Your task to perform on an android device: show emergency info Image 0: 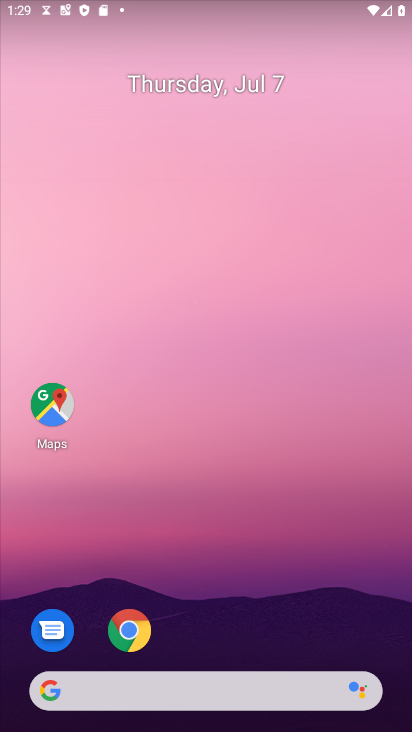
Step 0: drag from (274, 634) to (224, 81)
Your task to perform on an android device: show emergency info Image 1: 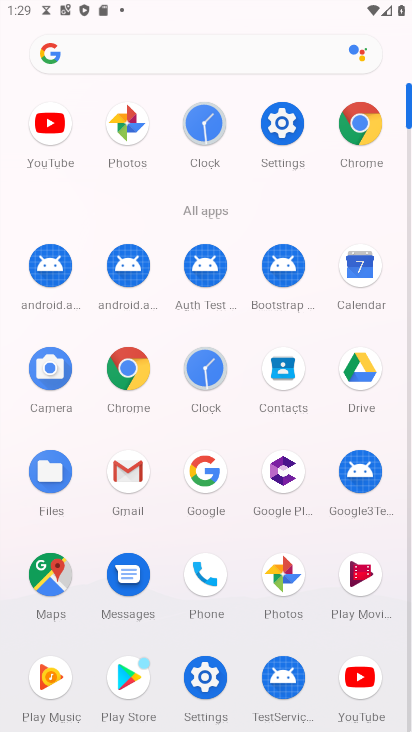
Step 1: click (285, 132)
Your task to perform on an android device: show emergency info Image 2: 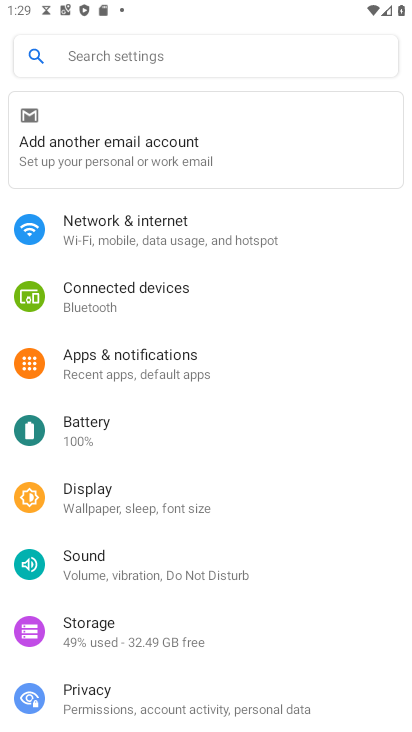
Step 2: drag from (217, 638) to (184, 142)
Your task to perform on an android device: show emergency info Image 3: 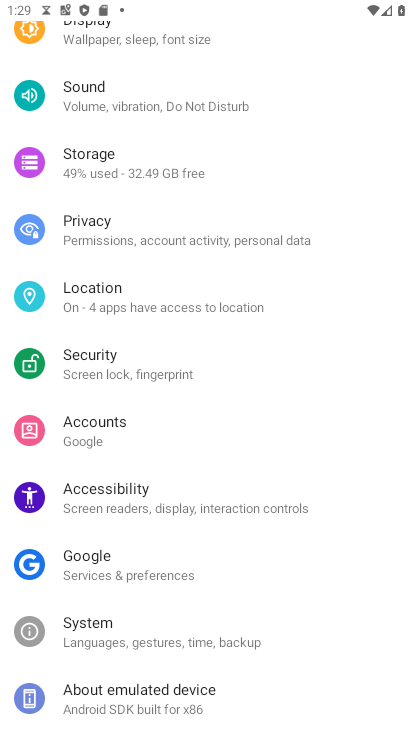
Step 3: click (180, 705)
Your task to perform on an android device: show emergency info Image 4: 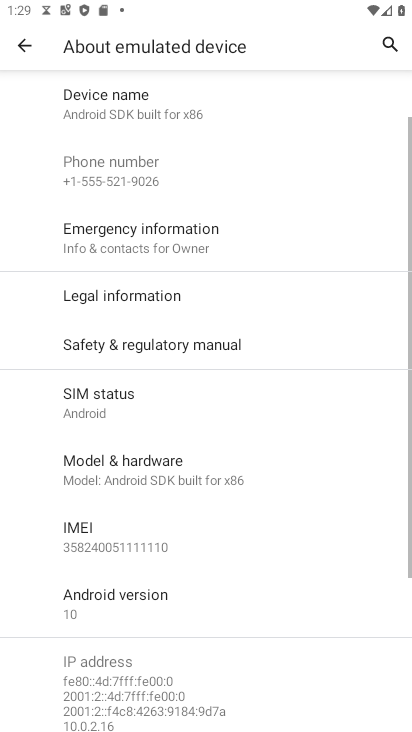
Step 4: click (206, 222)
Your task to perform on an android device: show emergency info Image 5: 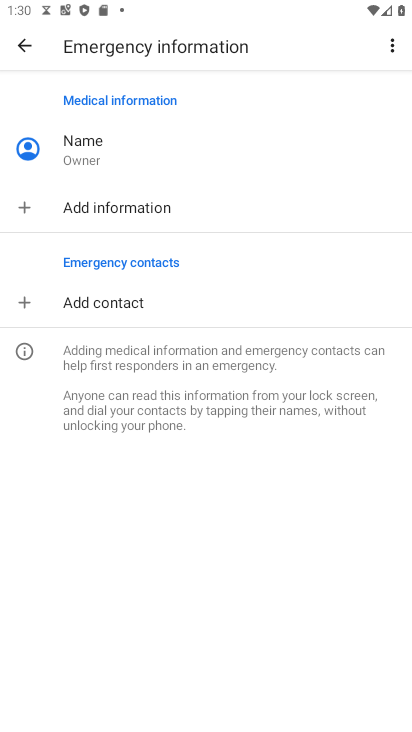
Step 5: task complete